Your task to perform on an android device: all mails in gmail Image 0: 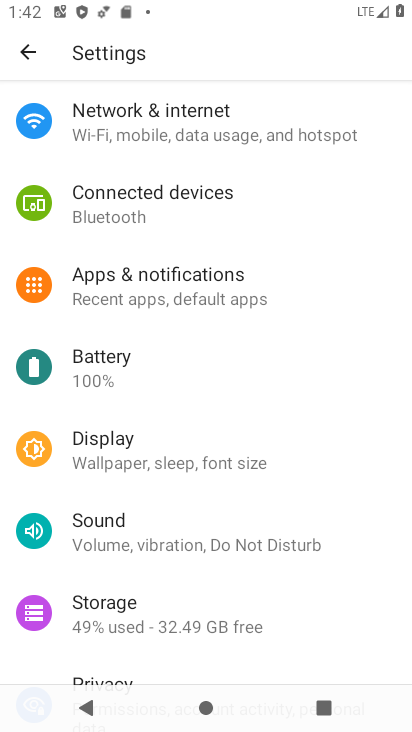
Step 0: press home button
Your task to perform on an android device: all mails in gmail Image 1: 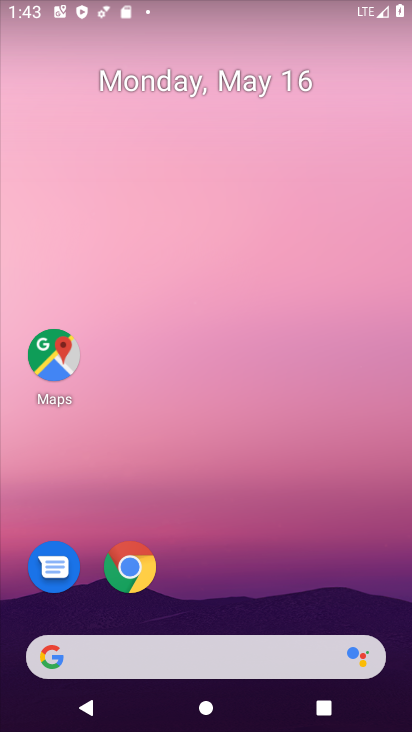
Step 1: drag from (203, 620) to (179, 368)
Your task to perform on an android device: all mails in gmail Image 2: 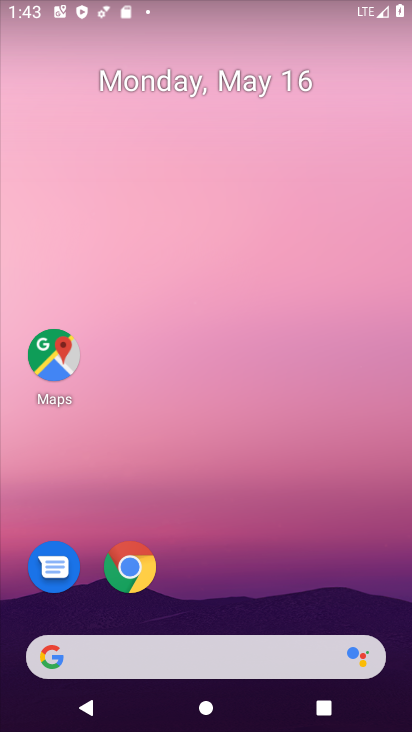
Step 2: drag from (238, 599) to (256, 147)
Your task to perform on an android device: all mails in gmail Image 3: 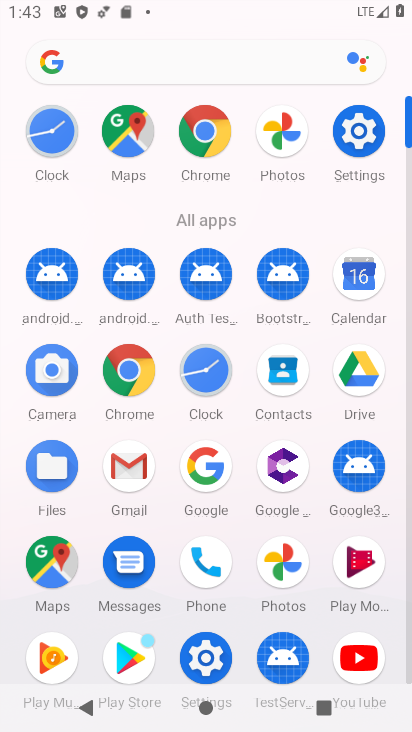
Step 3: click (134, 462)
Your task to perform on an android device: all mails in gmail Image 4: 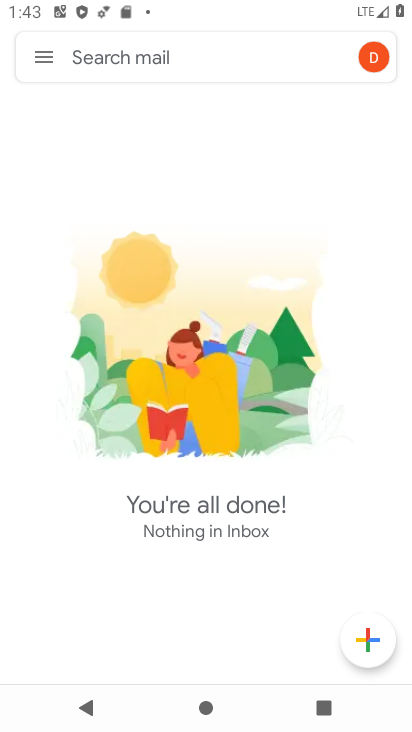
Step 4: click (47, 49)
Your task to perform on an android device: all mails in gmail Image 5: 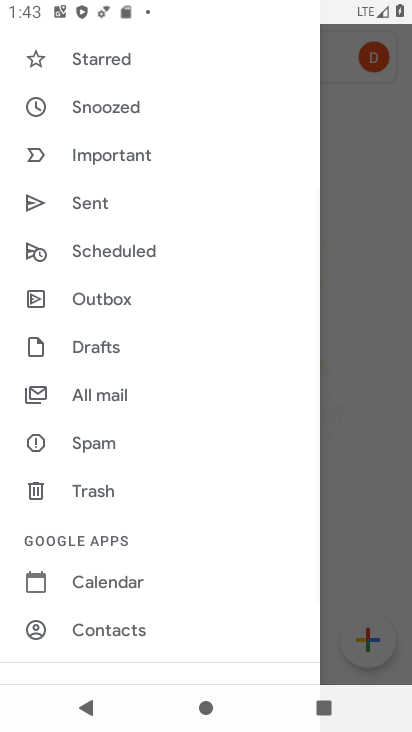
Step 5: click (157, 391)
Your task to perform on an android device: all mails in gmail Image 6: 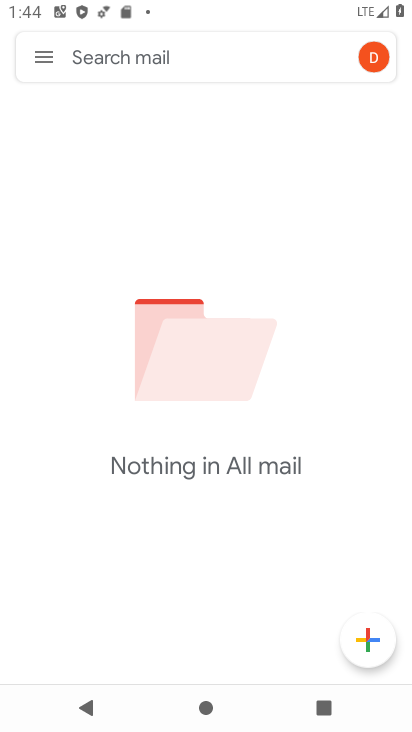
Step 6: task complete